Your task to perform on an android device: set an alarm Image 0: 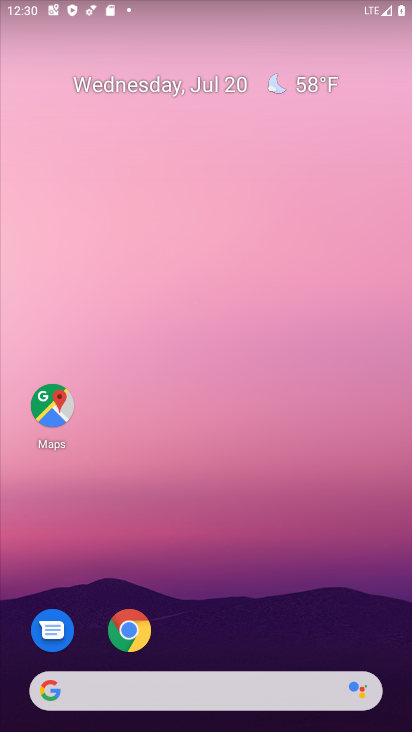
Step 0: drag from (229, 614) to (206, 131)
Your task to perform on an android device: set an alarm Image 1: 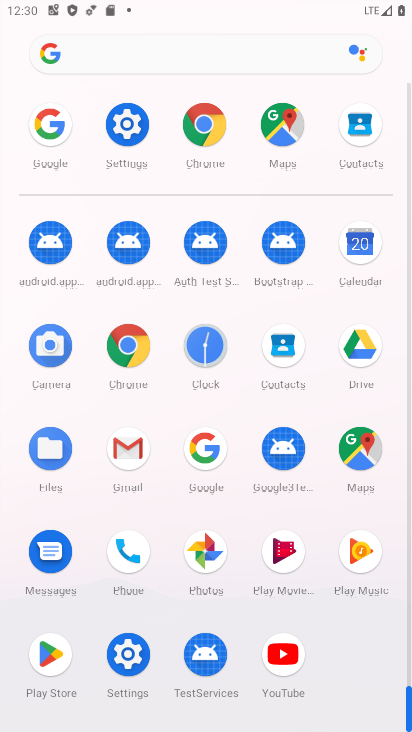
Step 1: click (208, 364)
Your task to perform on an android device: set an alarm Image 2: 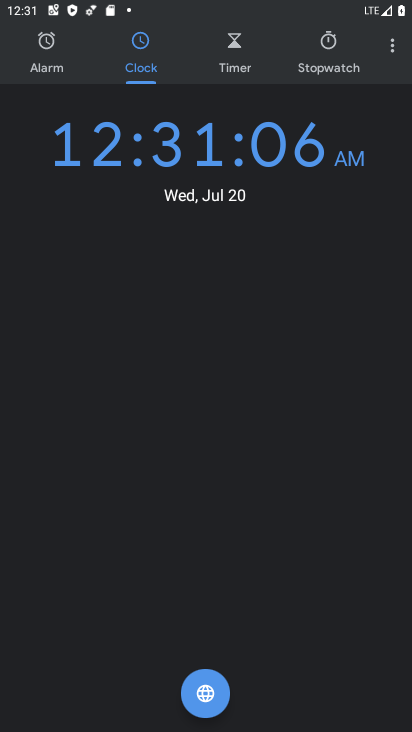
Step 2: click (63, 57)
Your task to perform on an android device: set an alarm Image 3: 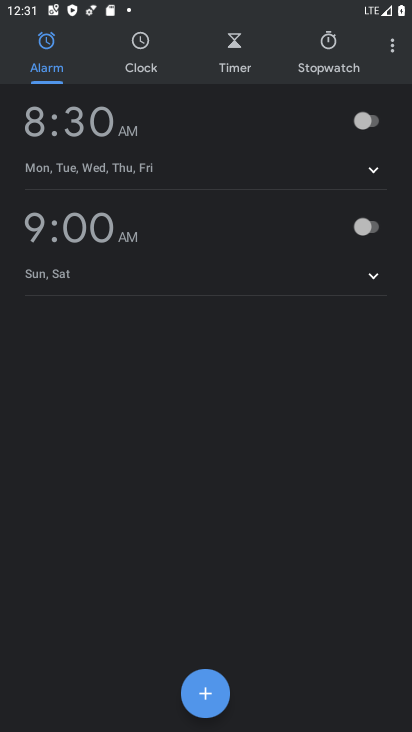
Step 3: click (215, 694)
Your task to perform on an android device: set an alarm Image 4: 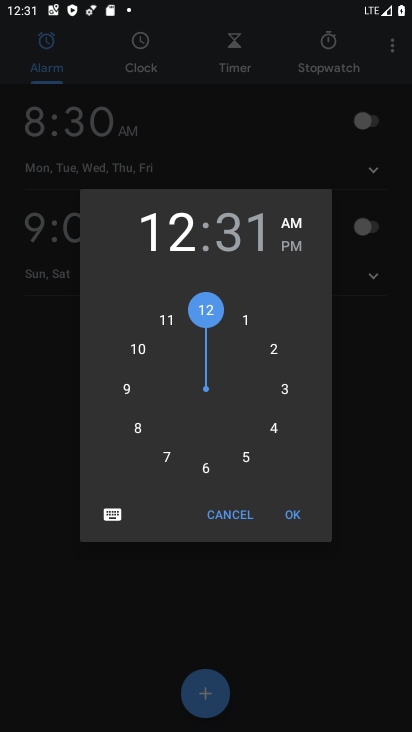
Step 4: drag from (207, 319) to (240, 507)
Your task to perform on an android device: set an alarm Image 5: 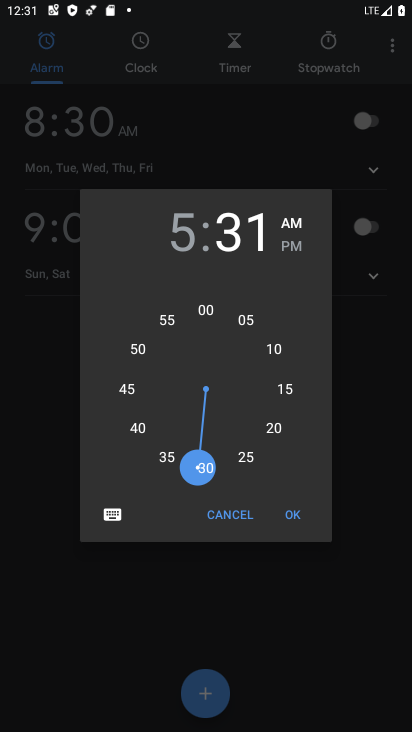
Step 5: drag from (224, 460) to (288, 414)
Your task to perform on an android device: set an alarm Image 6: 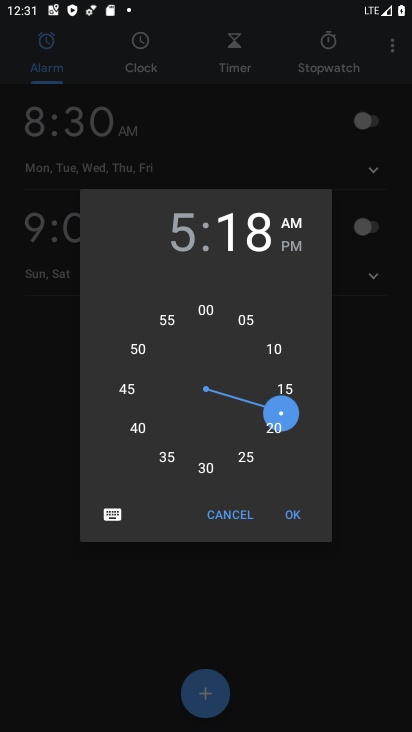
Step 6: click (283, 415)
Your task to perform on an android device: set an alarm Image 7: 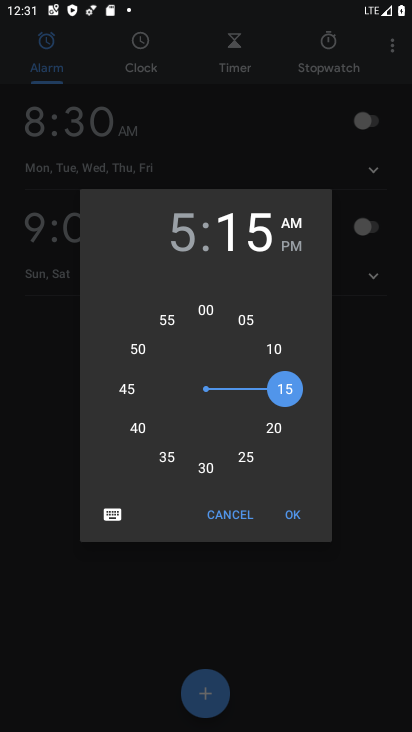
Step 7: click (289, 510)
Your task to perform on an android device: set an alarm Image 8: 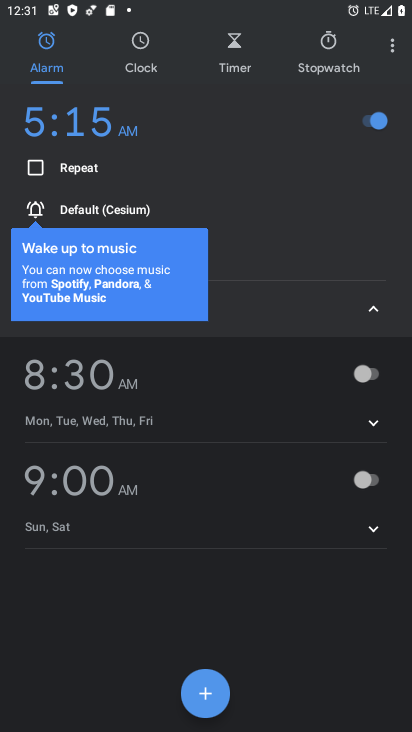
Step 8: task complete